Your task to perform on an android device: Open settings on Google Maps Image 0: 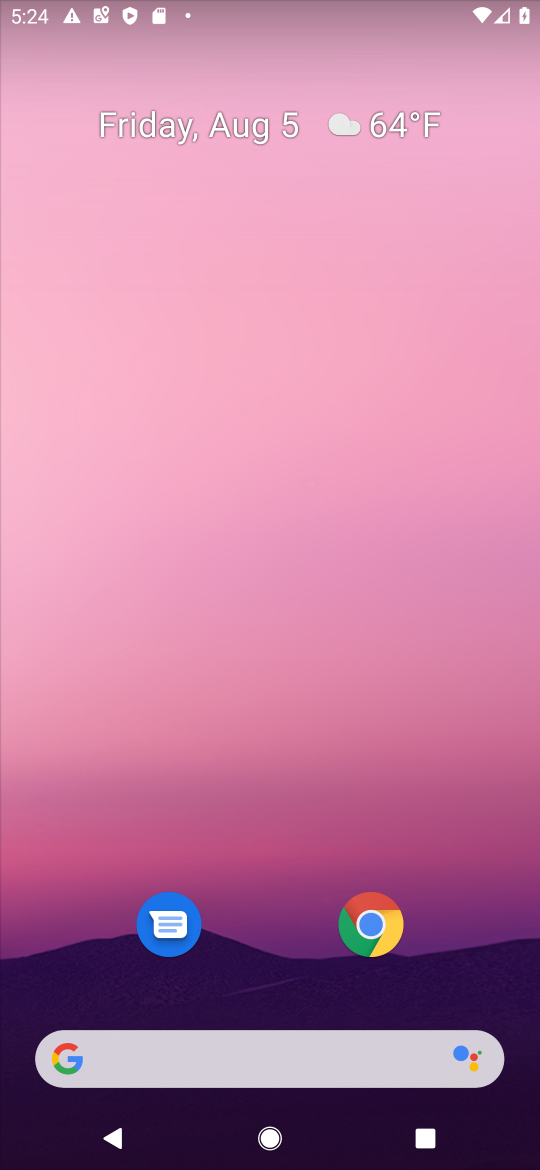
Step 0: drag from (162, 1134) to (289, 120)
Your task to perform on an android device: Open settings on Google Maps Image 1: 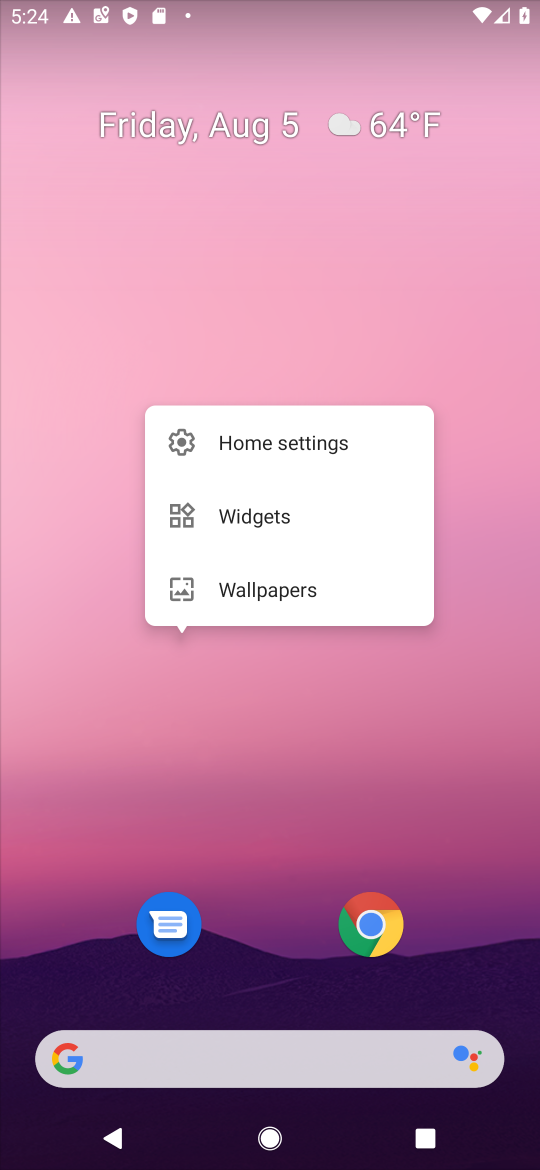
Step 1: click (334, 1124)
Your task to perform on an android device: Open settings on Google Maps Image 2: 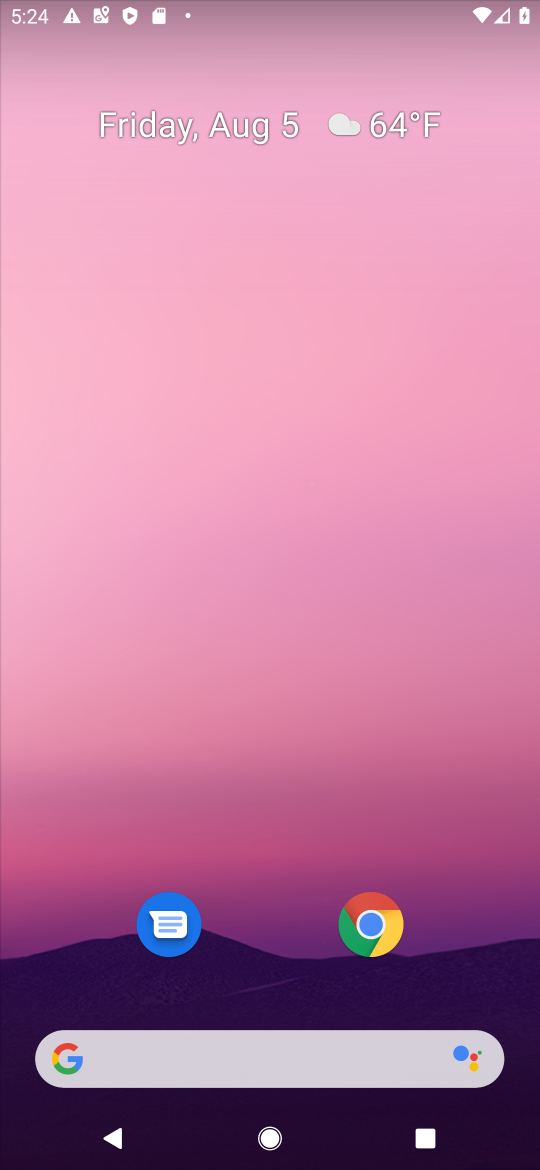
Step 2: drag from (213, 936) to (387, 81)
Your task to perform on an android device: Open settings on Google Maps Image 3: 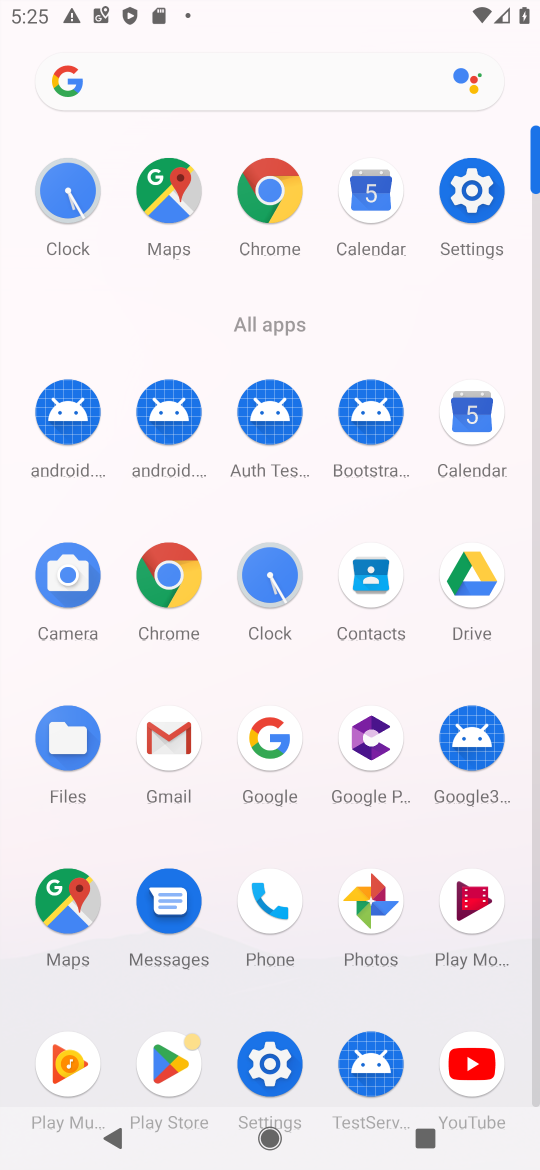
Step 3: click (28, 911)
Your task to perform on an android device: Open settings on Google Maps Image 4: 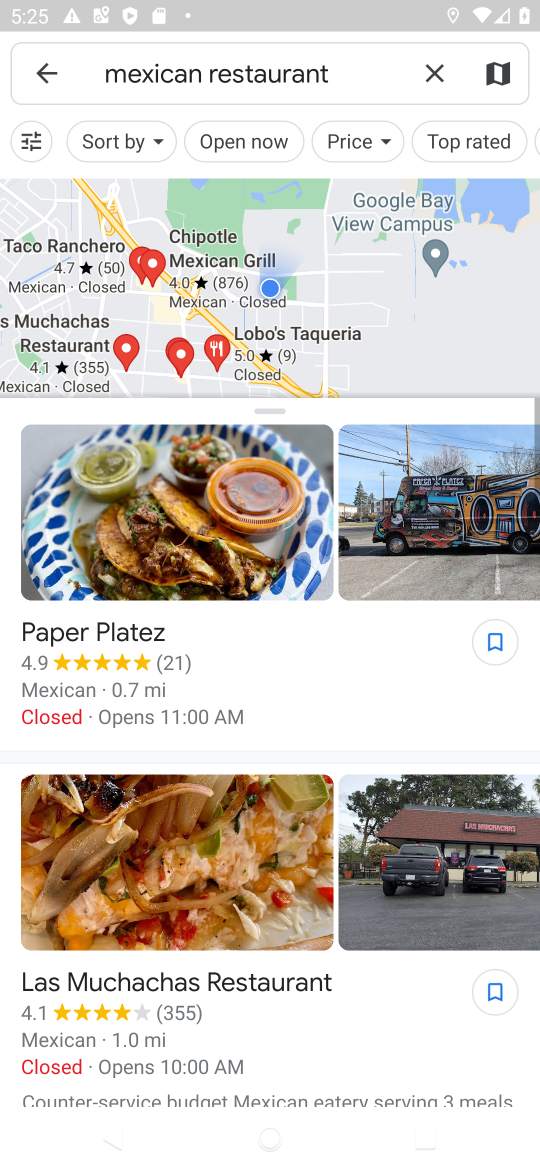
Step 4: click (54, 72)
Your task to perform on an android device: Open settings on Google Maps Image 5: 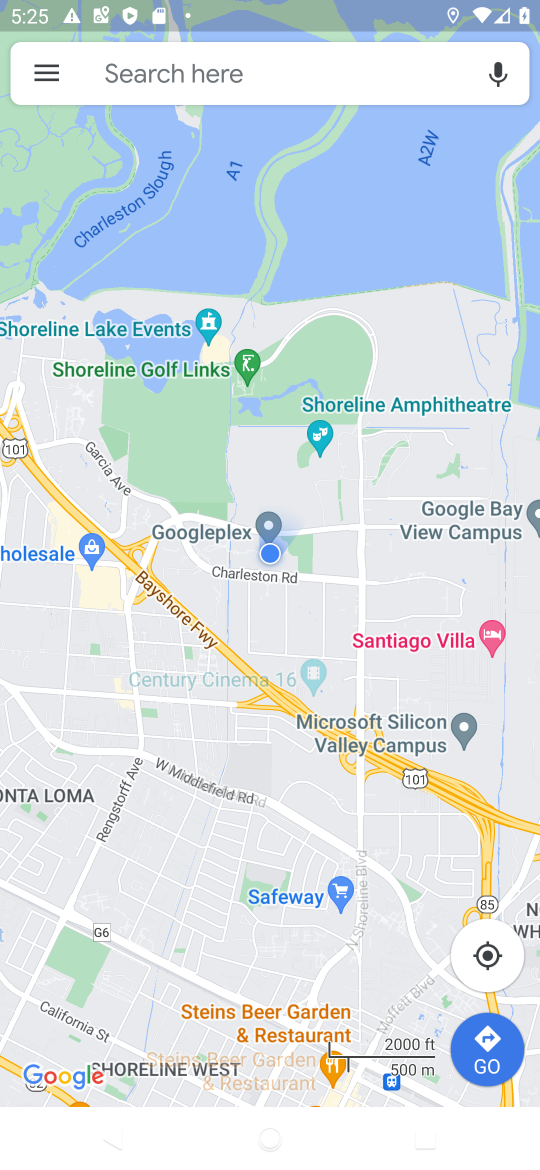
Step 5: click (54, 72)
Your task to perform on an android device: Open settings on Google Maps Image 6: 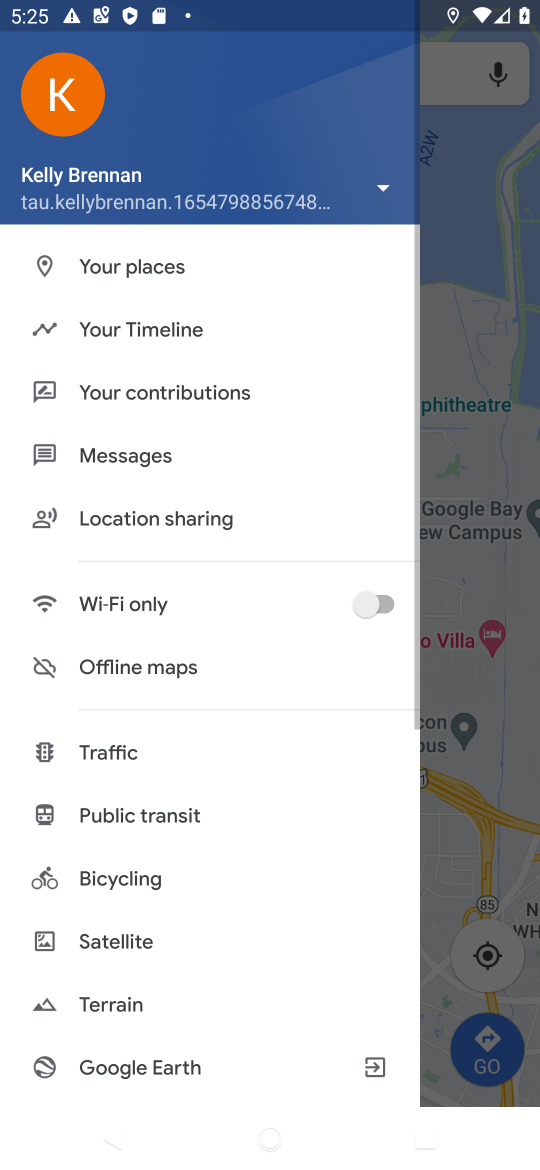
Step 6: drag from (159, 894) to (99, 102)
Your task to perform on an android device: Open settings on Google Maps Image 7: 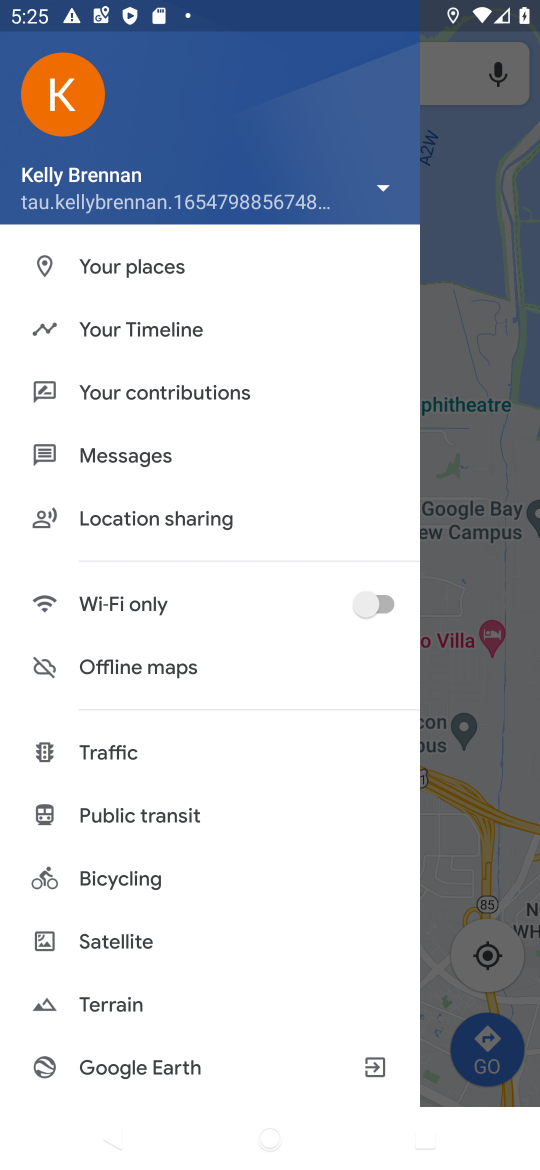
Step 7: drag from (197, 953) to (127, 157)
Your task to perform on an android device: Open settings on Google Maps Image 8: 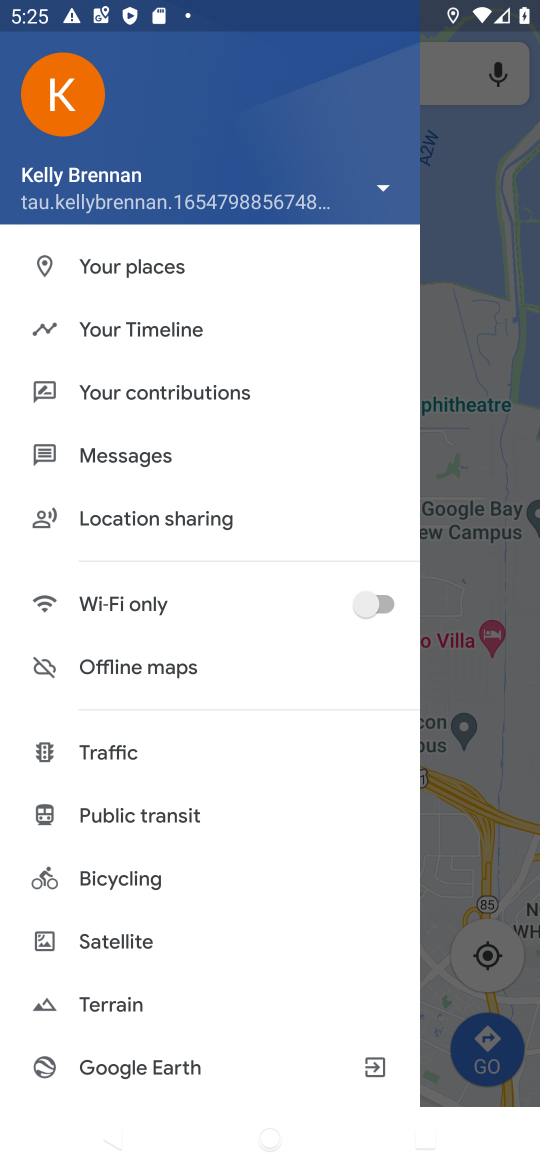
Step 8: drag from (88, 824) to (172, 178)
Your task to perform on an android device: Open settings on Google Maps Image 9: 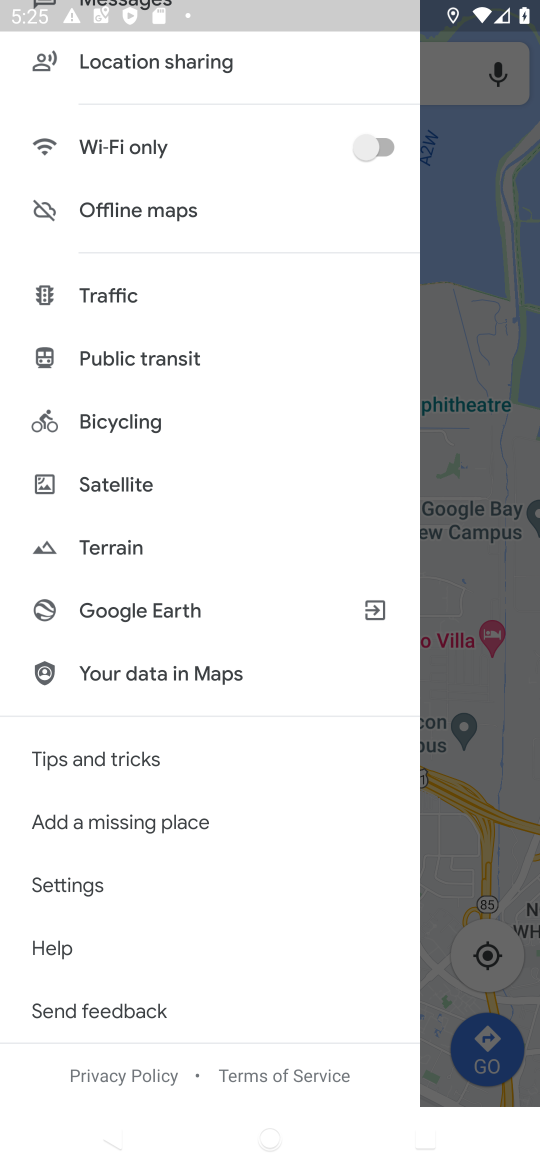
Step 9: click (136, 882)
Your task to perform on an android device: Open settings on Google Maps Image 10: 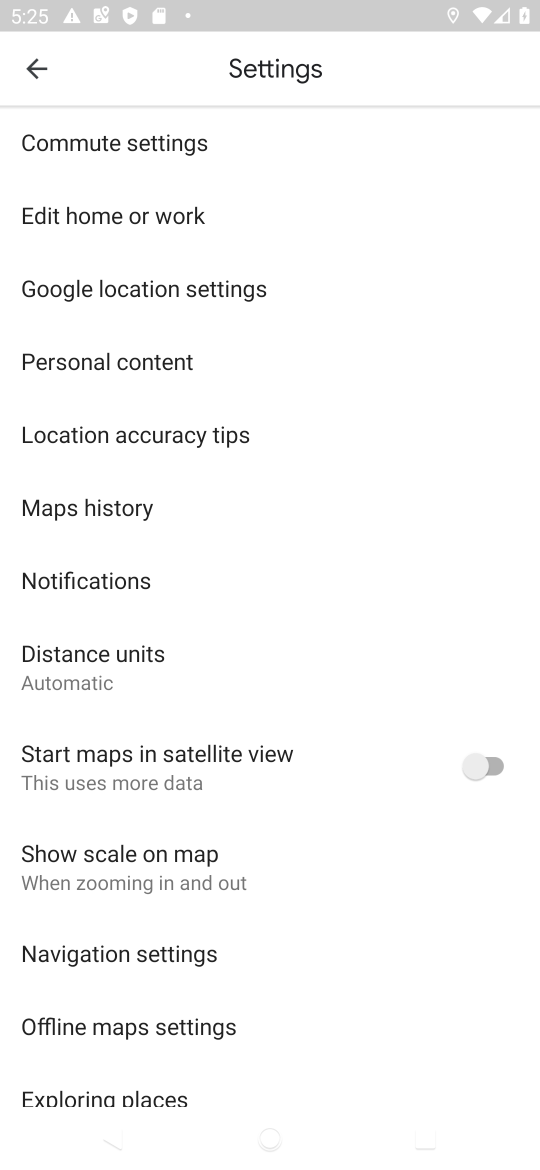
Step 10: task complete